Your task to perform on an android device: Toggle the flashlight Image 0: 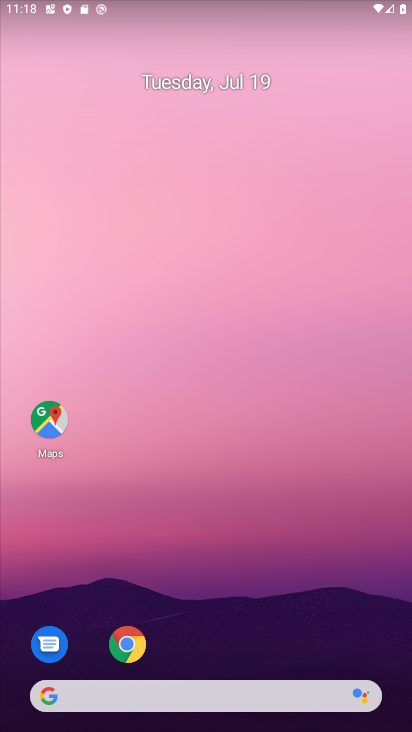
Step 0: press home button
Your task to perform on an android device: Toggle the flashlight Image 1: 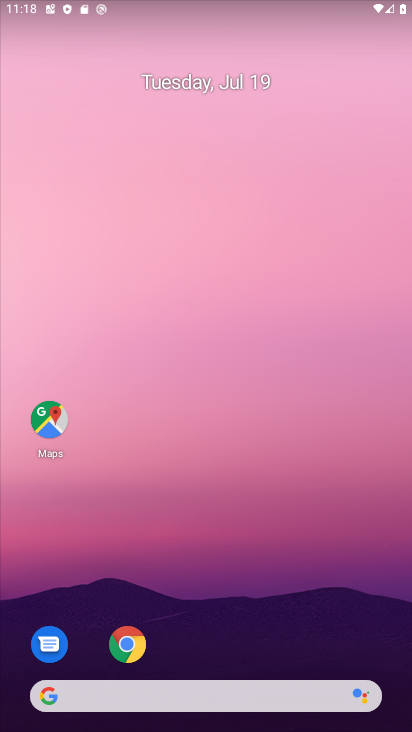
Step 1: task complete